Your task to perform on an android device: turn on notifications settings in the gmail app Image 0: 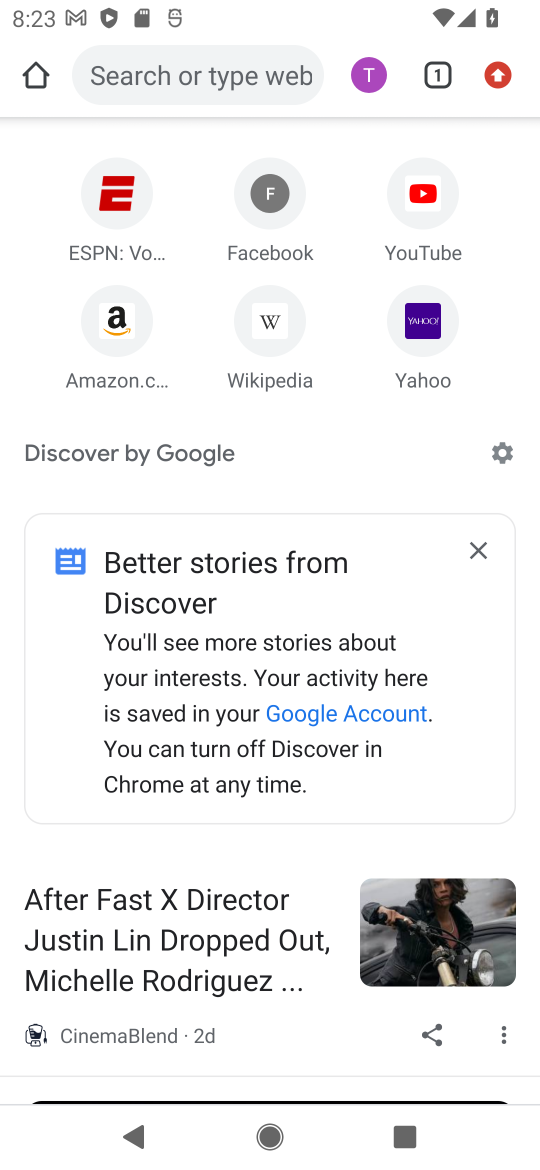
Step 0: press home button
Your task to perform on an android device: turn on notifications settings in the gmail app Image 1: 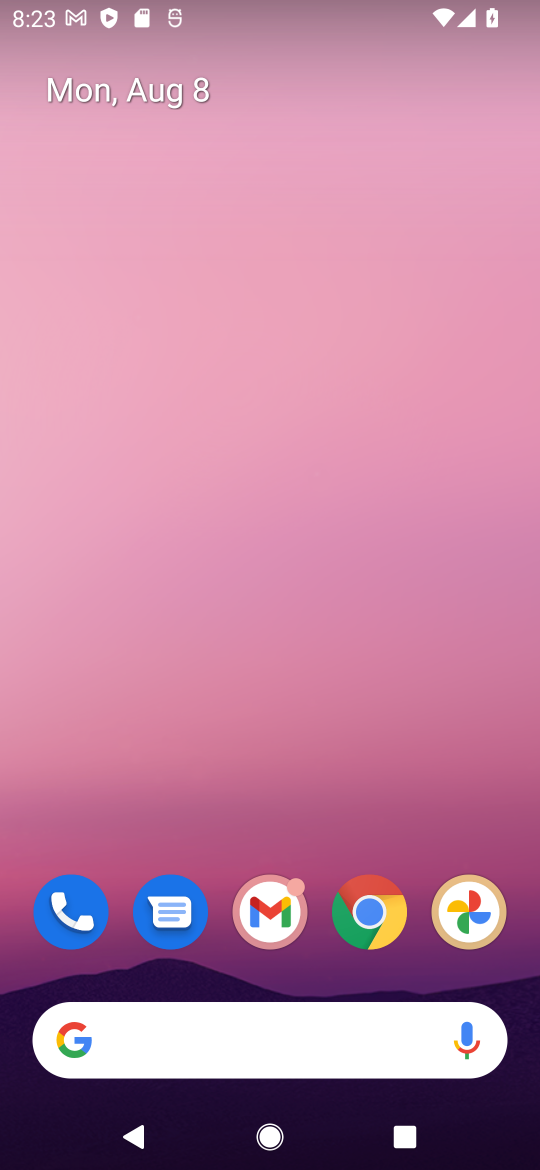
Step 1: drag from (416, 647) to (344, 112)
Your task to perform on an android device: turn on notifications settings in the gmail app Image 2: 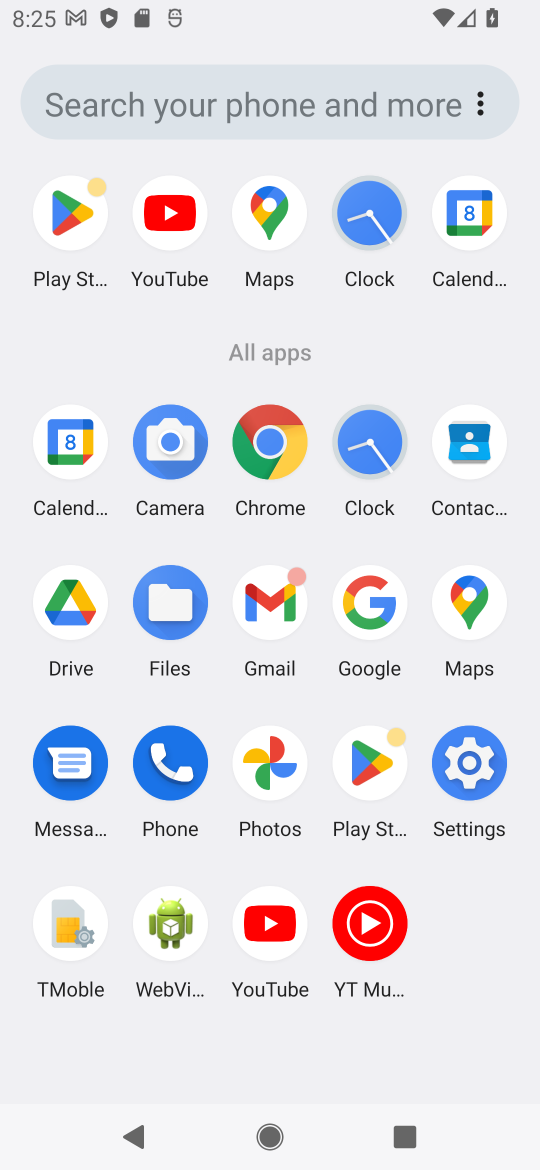
Step 2: click (297, 621)
Your task to perform on an android device: turn on notifications settings in the gmail app Image 3: 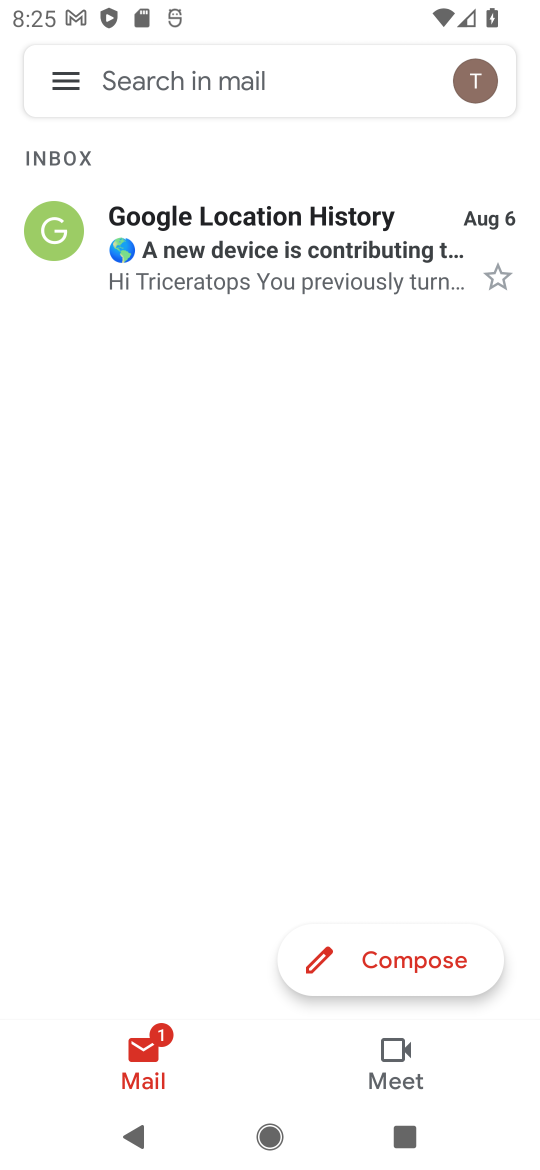
Step 3: click (63, 79)
Your task to perform on an android device: turn on notifications settings in the gmail app Image 4: 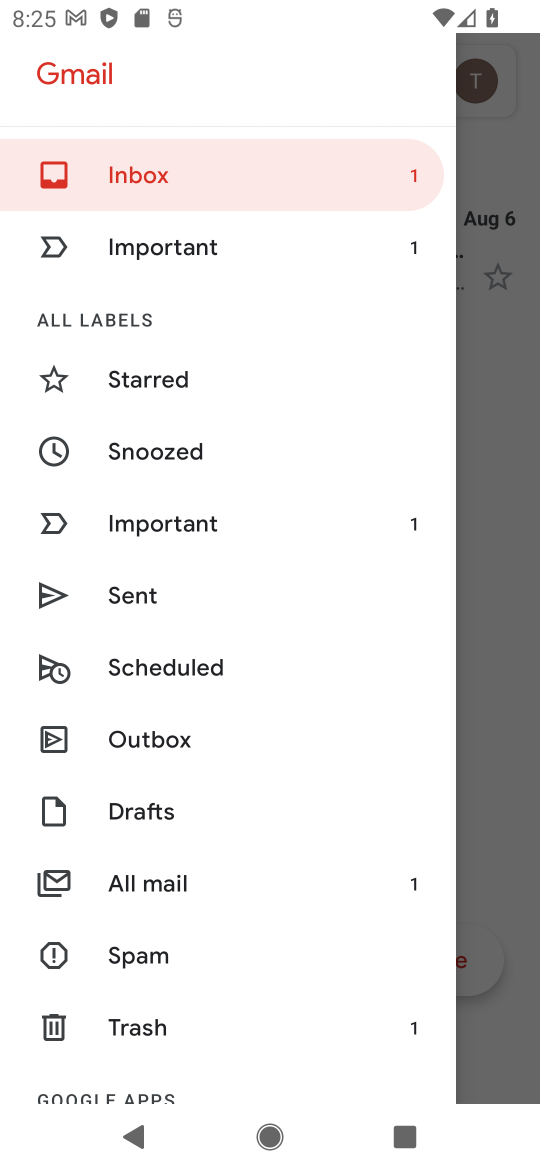
Step 4: drag from (157, 1032) to (209, 38)
Your task to perform on an android device: turn on notifications settings in the gmail app Image 5: 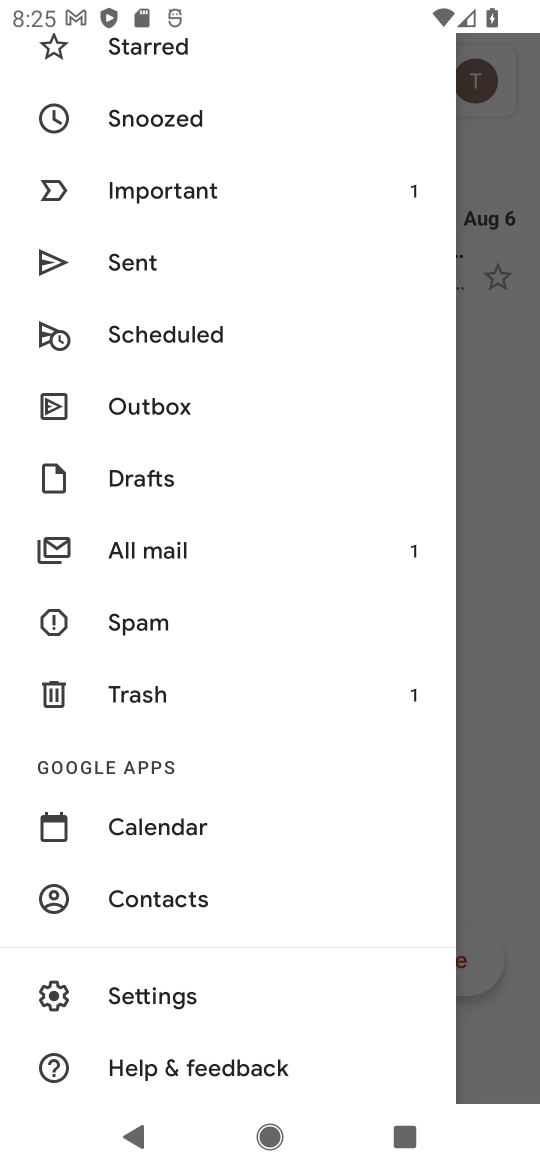
Step 5: click (201, 974)
Your task to perform on an android device: turn on notifications settings in the gmail app Image 6: 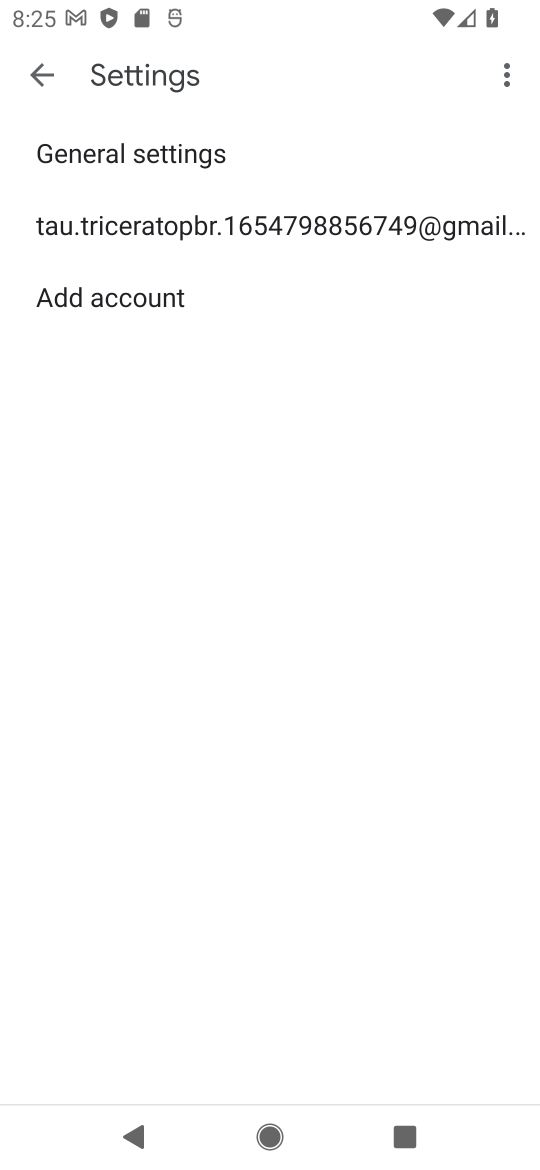
Step 6: click (173, 234)
Your task to perform on an android device: turn on notifications settings in the gmail app Image 7: 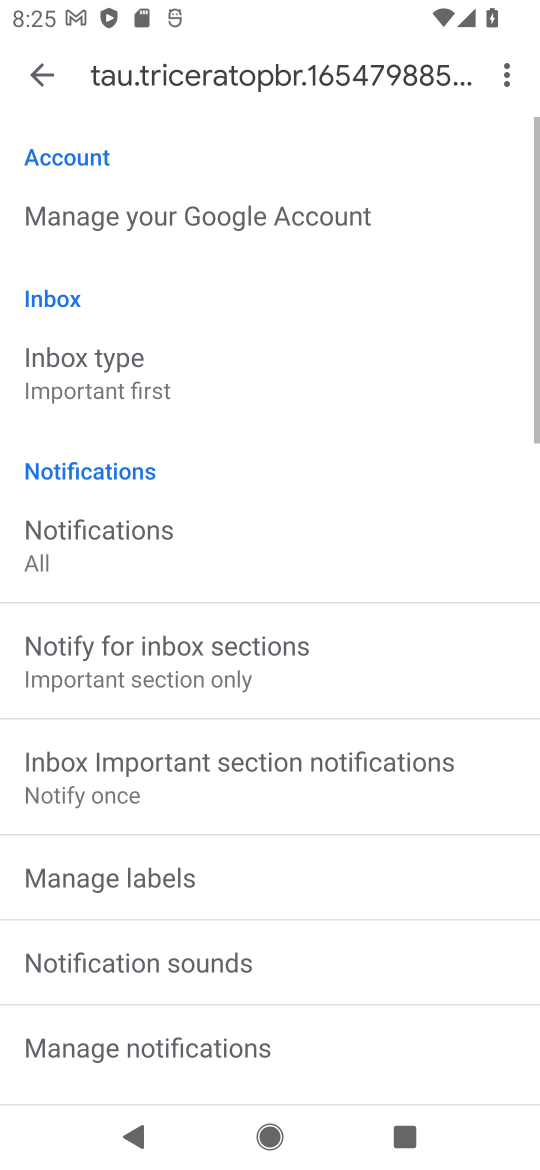
Step 7: click (120, 549)
Your task to perform on an android device: turn on notifications settings in the gmail app Image 8: 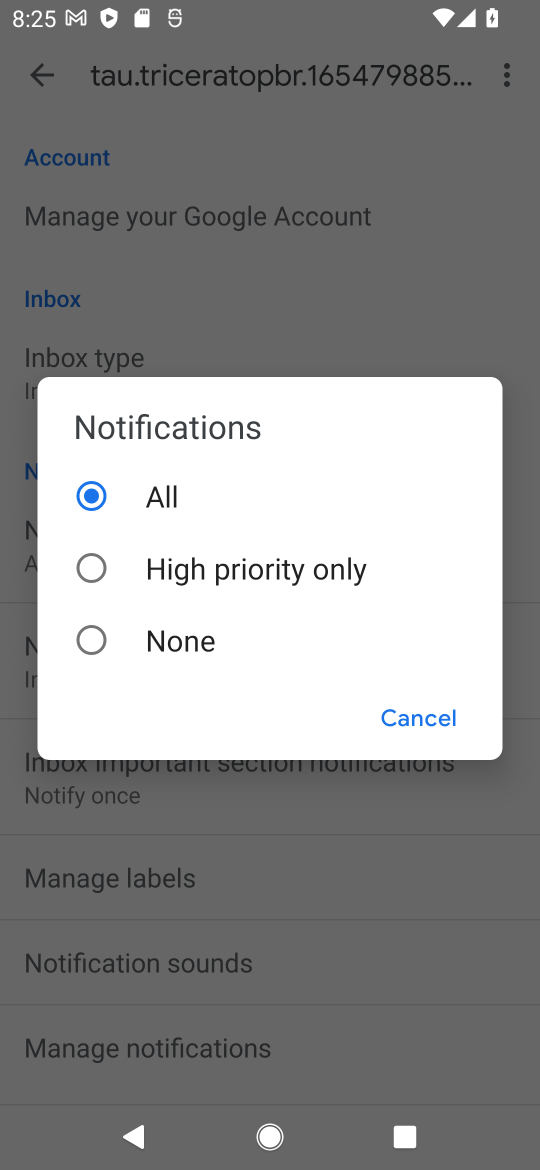
Step 8: click (164, 513)
Your task to perform on an android device: turn on notifications settings in the gmail app Image 9: 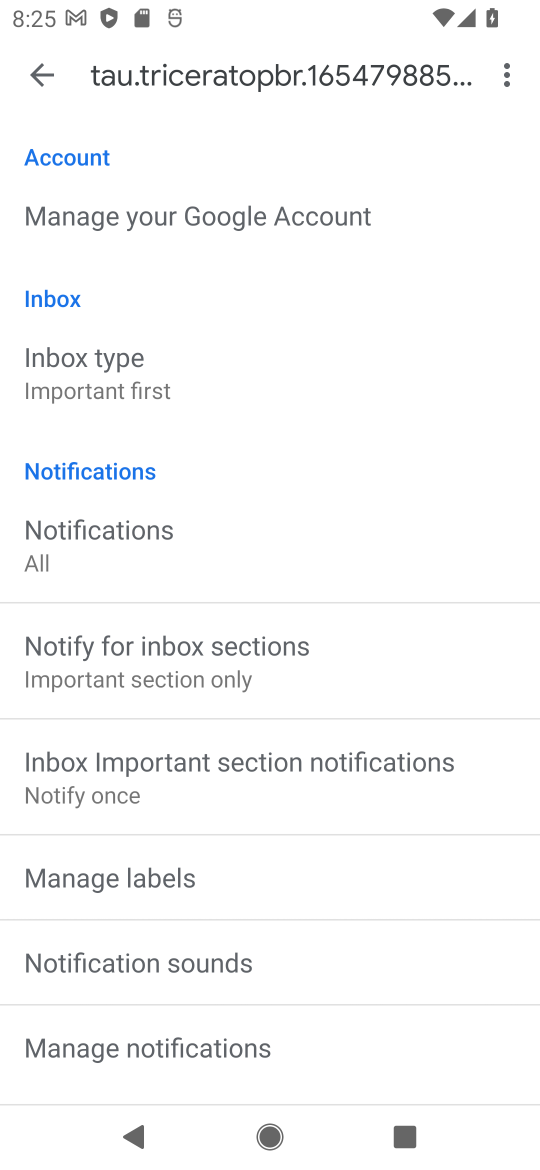
Step 9: task complete